Your task to perform on an android device: turn on sleep mode Image 0: 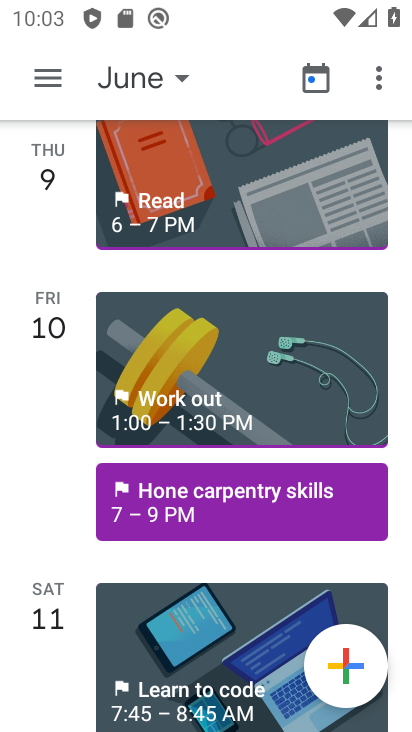
Step 0: press home button
Your task to perform on an android device: turn on sleep mode Image 1: 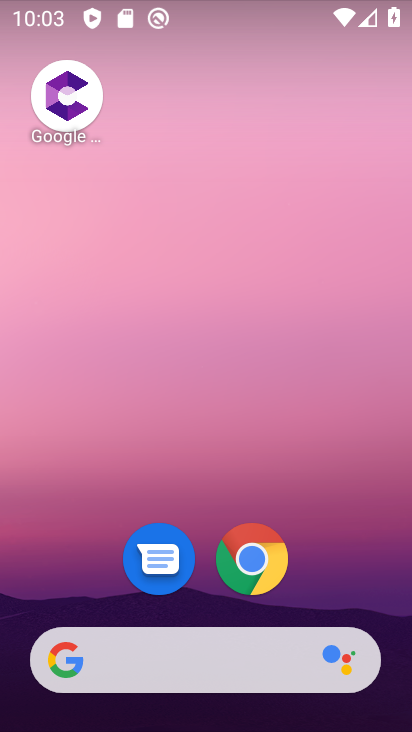
Step 1: drag from (364, 578) to (359, 30)
Your task to perform on an android device: turn on sleep mode Image 2: 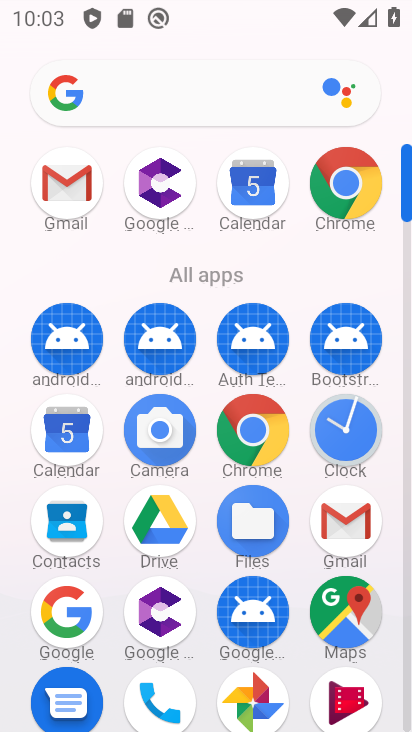
Step 2: drag from (211, 499) to (253, 153)
Your task to perform on an android device: turn on sleep mode Image 3: 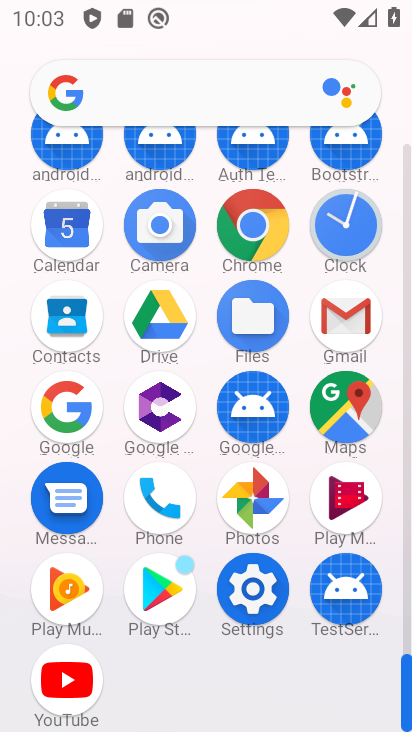
Step 3: click (251, 578)
Your task to perform on an android device: turn on sleep mode Image 4: 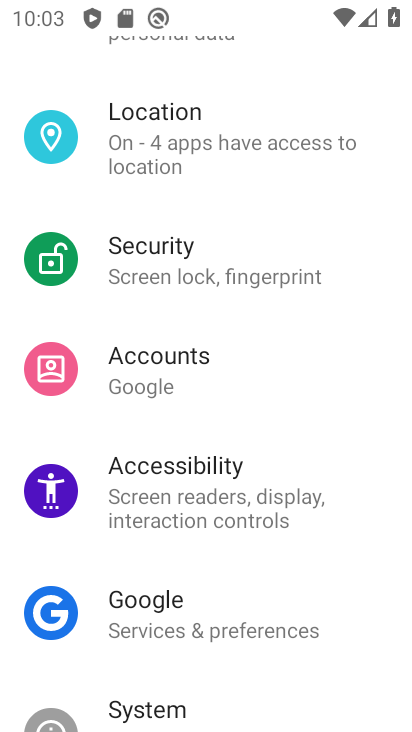
Step 4: drag from (308, 217) to (275, 651)
Your task to perform on an android device: turn on sleep mode Image 5: 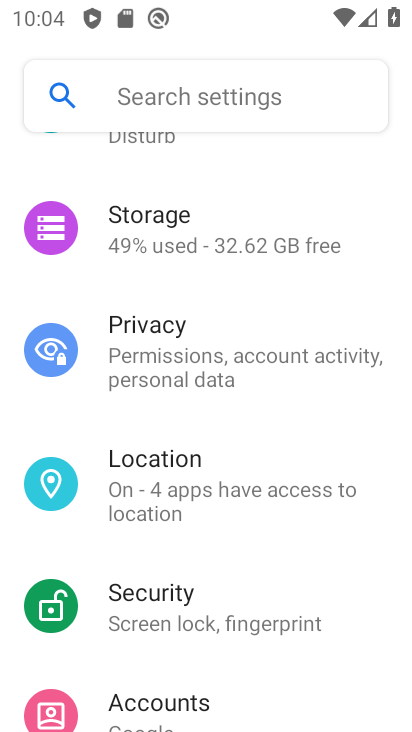
Step 5: drag from (289, 293) to (296, 640)
Your task to perform on an android device: turn on sleep mode Image 6: 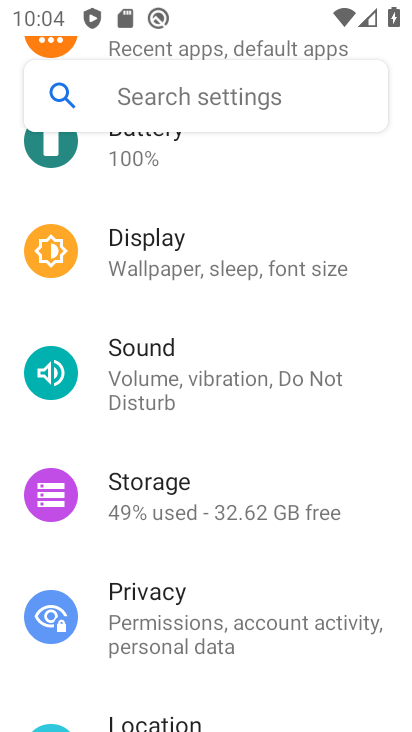
Step 6: drag from (231, 276) to (228, 645)
Your task to perform on an android device: turn on sleep mode Image 7: 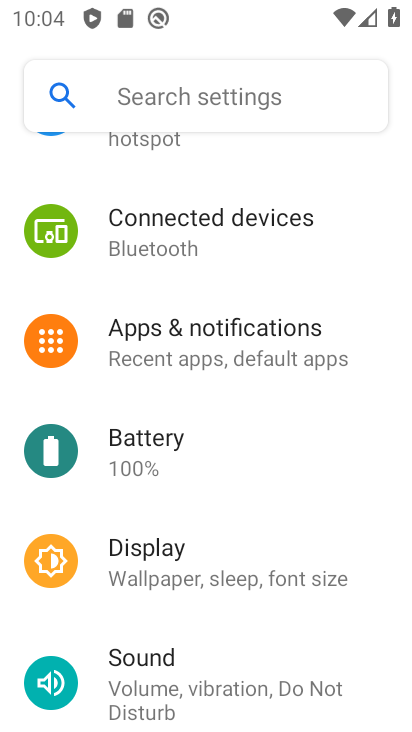
Step 7: drag from (239, 643) to (295, 199)
Your task to perform on an android device: turn on sleep mode Image 8: 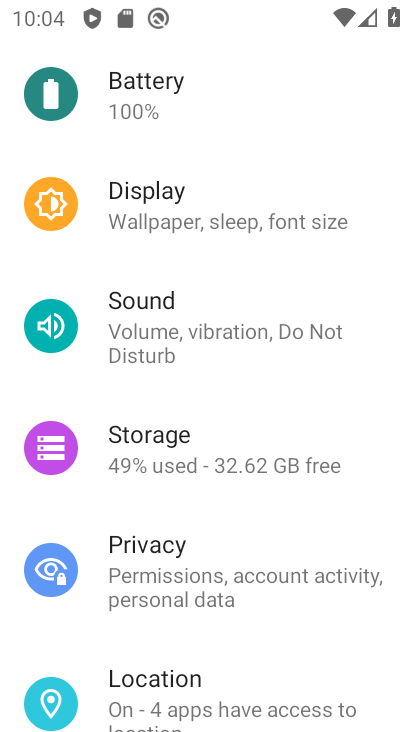
Step 8: click (135, 197)
Your task to perform on an android device: turn on sleep mode Image 9: 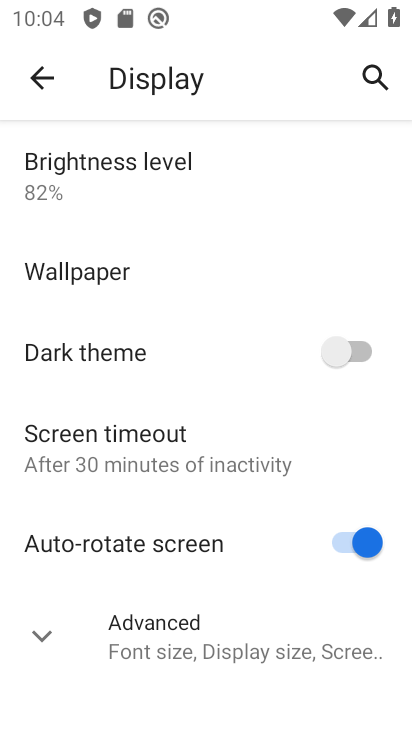
Step 9: task complete